Your task to perform on an android device: Search for seafood restaurants on Google Maps Image 0: 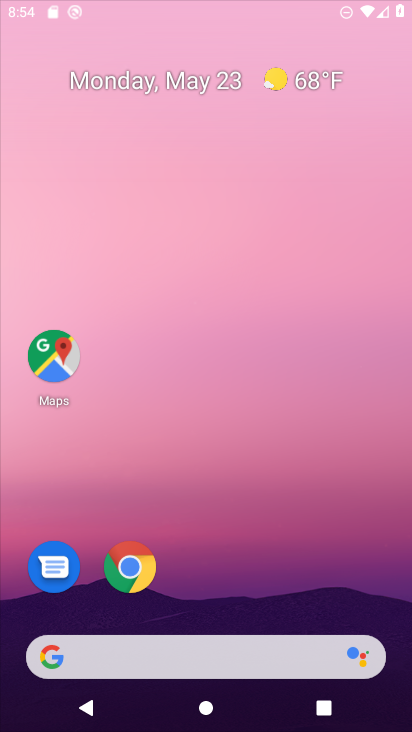
Step 0: click (338, 87)
Your task to perform on an android device: Search for seafood restaurants on Google Maps Image 1: 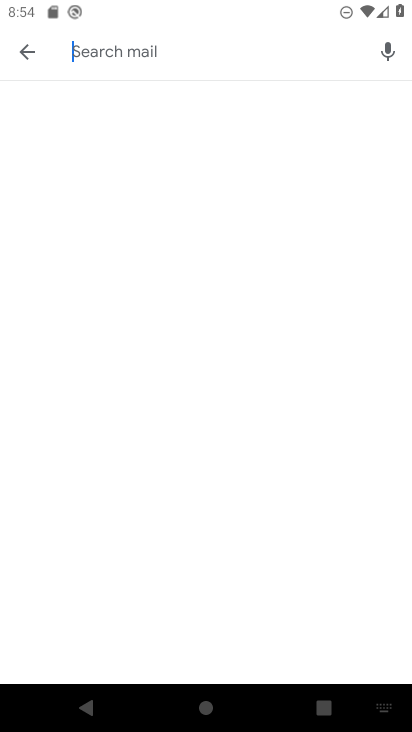
Step 1: press home button
Your task to perform on an android device: Search for seafood restaurants on Google Maps Image 2: 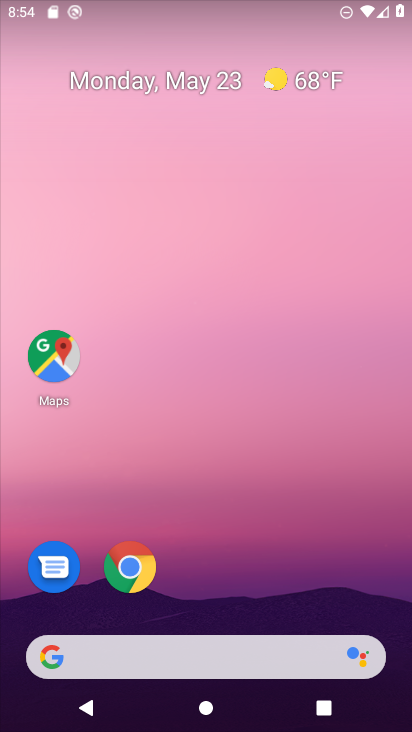
Step 2: drag from (213, 605) to (296, 1)
Your task to perform on an android device: Search for seafood restaurants on Google Maps Image 3: 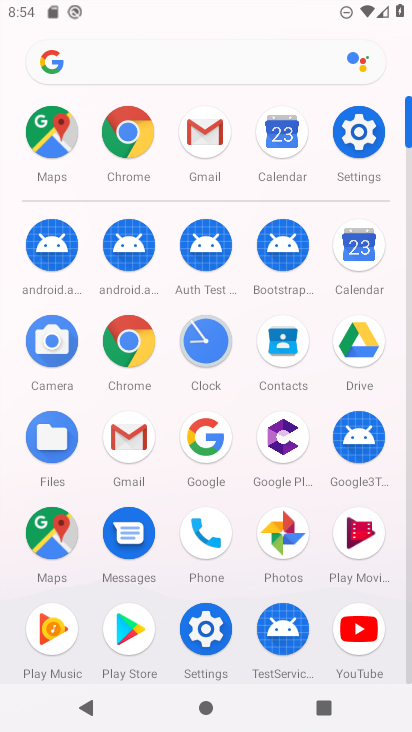
Step 3: click (38, 525)
Your task to perform on an android device: Search for seafood restaurants on Google Maps Image 4: 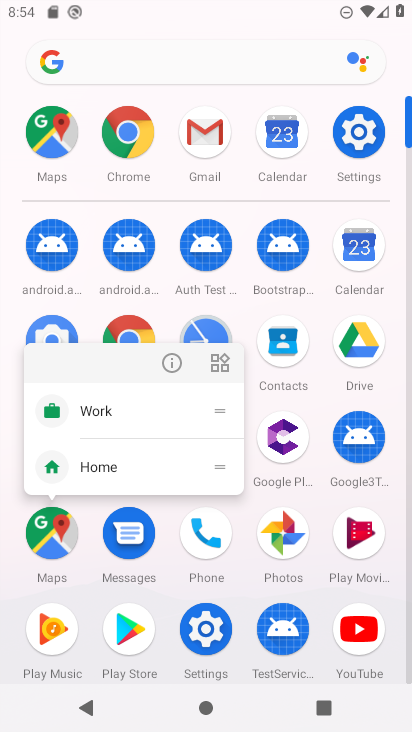
Step 4: click (177, 362)
Your task to perform on an android device: Search for seafood restaurants on Google Maps Image 5: 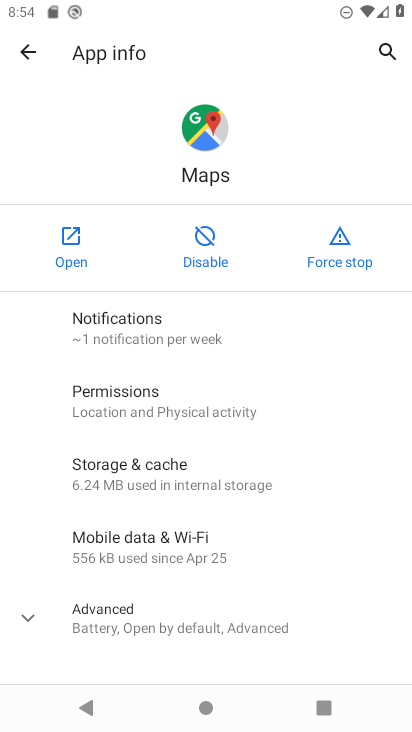
Step 5: click (87, 256)
Your task to perform on an android device: Search for seafood restaurants on Google Maps Image 6: 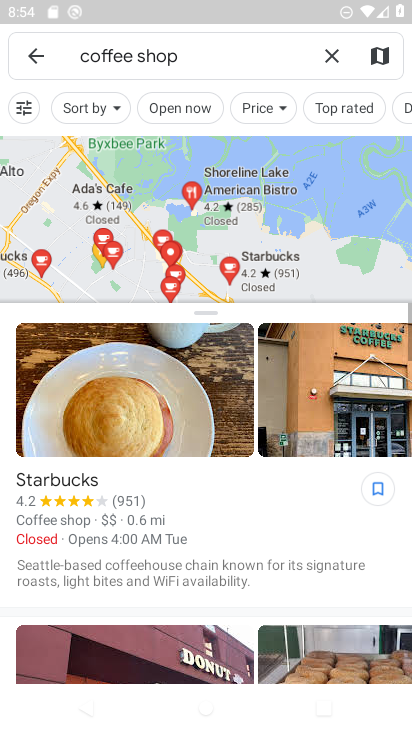
Step 6: click (337, 54)
Your task to perform on an android device: Search for seafood restaurants on Google Maps Image 7: 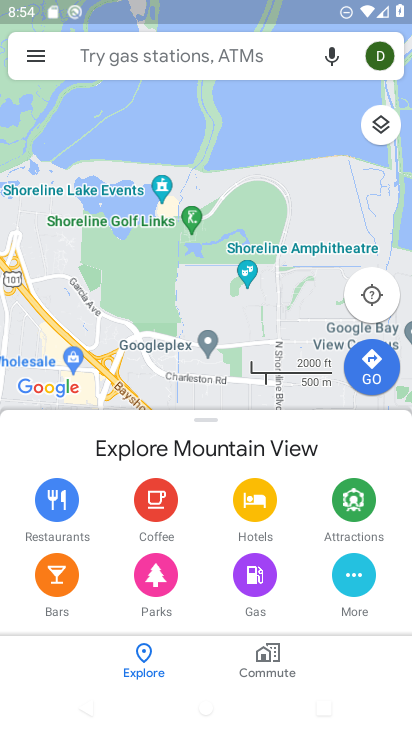
Step 7: click (265, 56)
Your task to perform on an android device: Search for seafood restaurants on Google Maps Image 8: 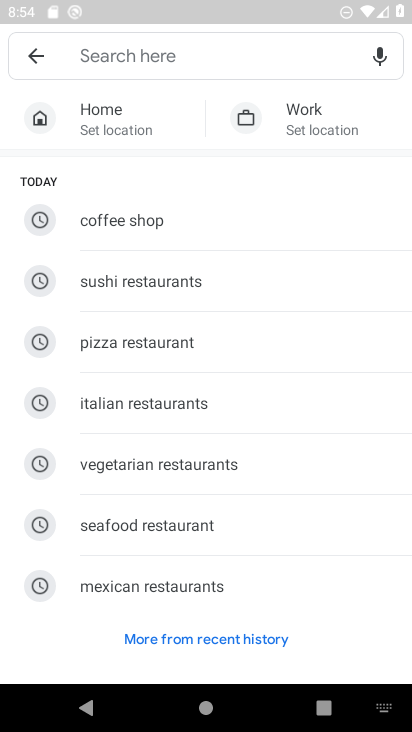
Step 8: click (113, 536)
Your task to perform on an android device: Search for seafood restaurants on Google Maps Image 9: 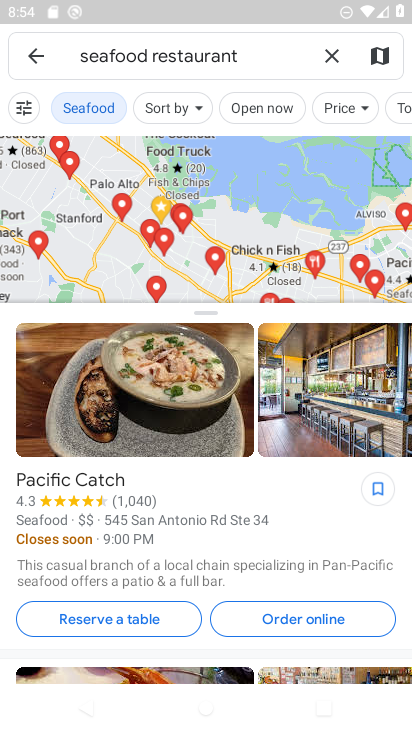
Step 9: task complete